Your task to perform on an android device: Open calendar and show me the second week of next month Image 0: 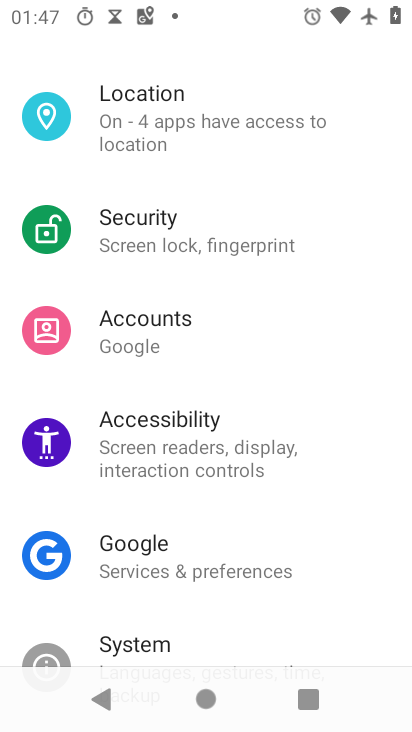
Step 0: press home button
Your task to perform on an android device: Open calendar and show me the second week of next month Image 1: 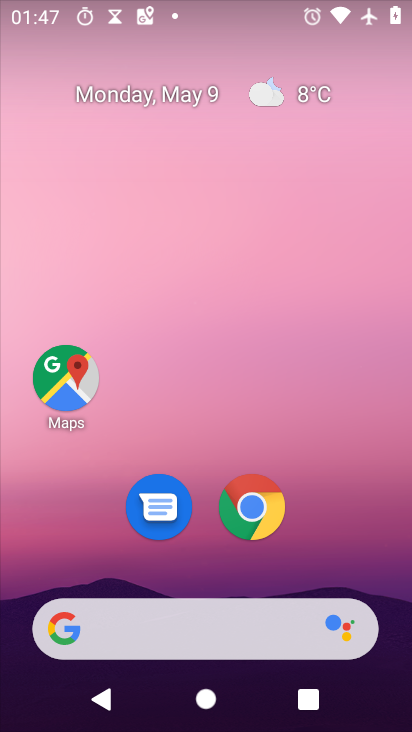
Step 1: drag from (229, 725) to (230, 219)
Your task to perform on an android device: Open calendar and show me the second week of next month Image 2: 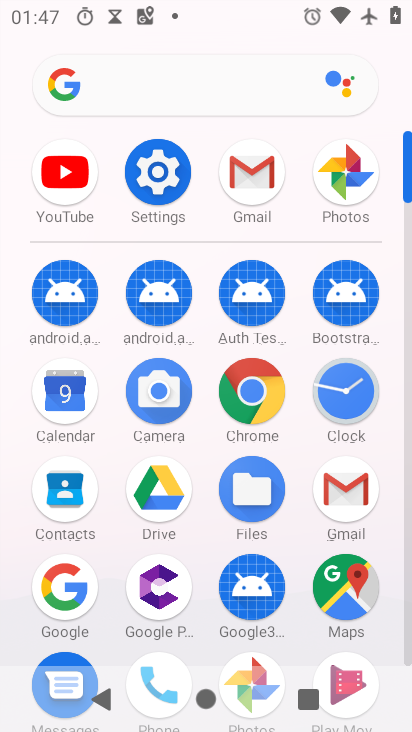
Step 2: click (56, 388)
Your task to perform on an android device: Open calendar and show me the second week of next month Image 3: 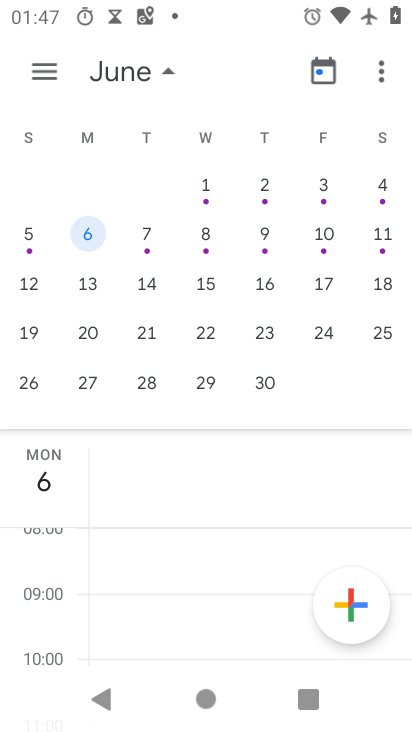
Step 3: click (94, 280)
Your task to perform on an android device: Open calendar and show me the second week of next month Image 4: 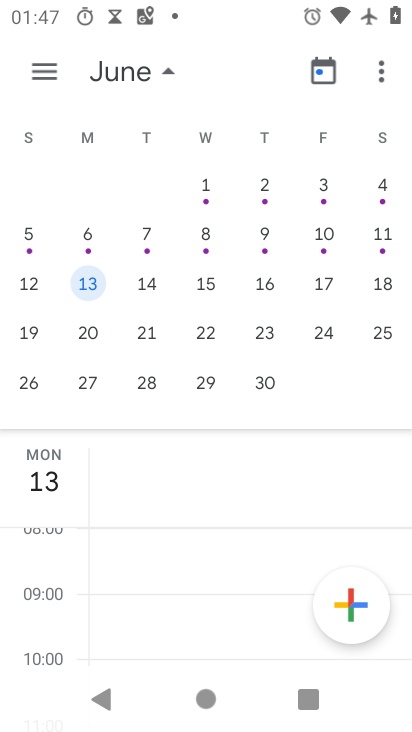
Step 4: task complete